Your task to perform on an android device: open app "Speedtest by Ookla" Image 0: 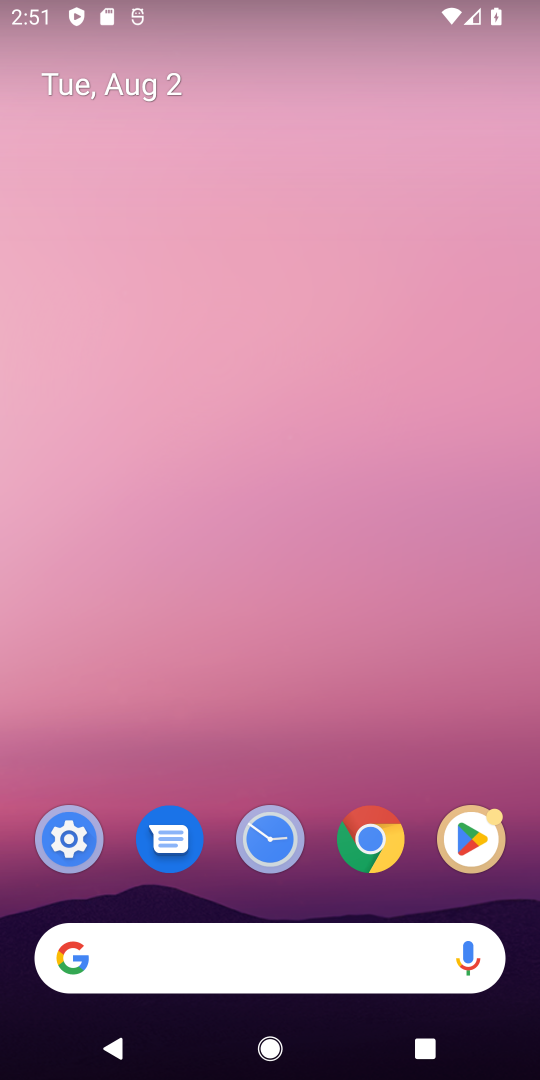
Step 0: click (450, 842)
Your task to perform on an android device: open app "Speedtest by Ookla" Image 1: 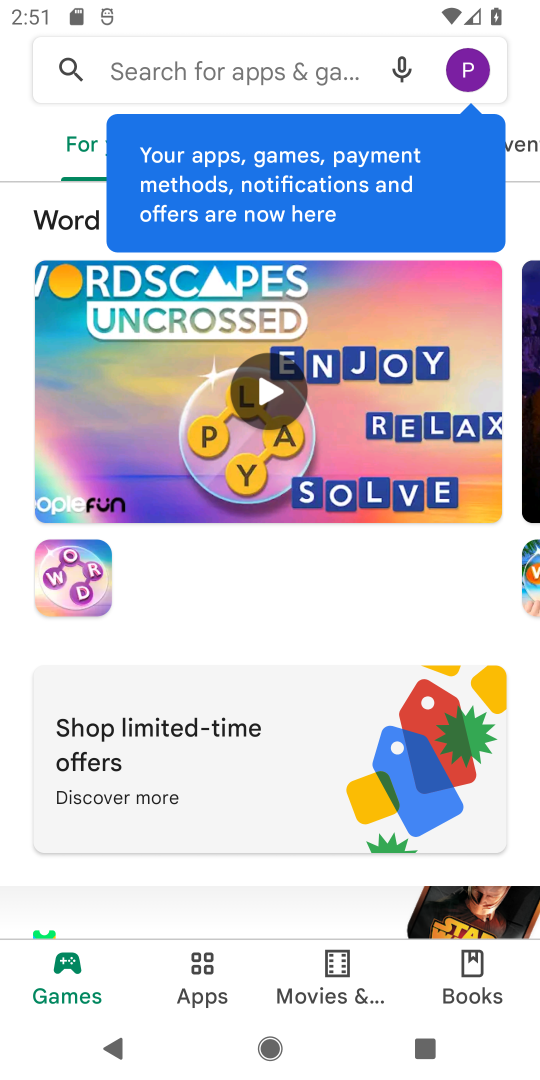
Step 1: click (239, 69)
Your task to perform on an android device: open app "Speedtest by Ookla" Image 2: 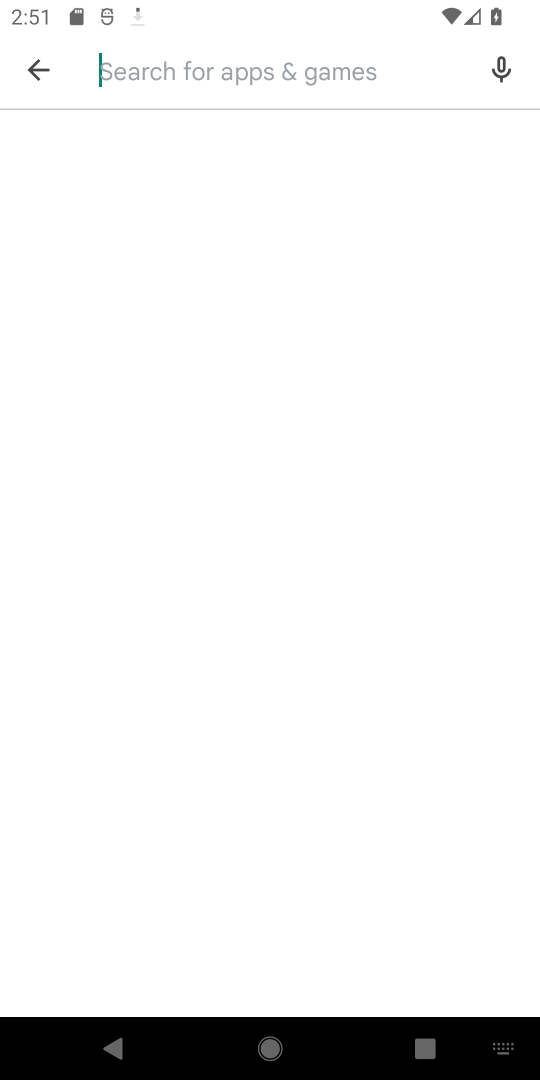
Step 2: type "speedtest"
Your task to perform on an android device: open app "Speedtest by Ookla" Image 3: 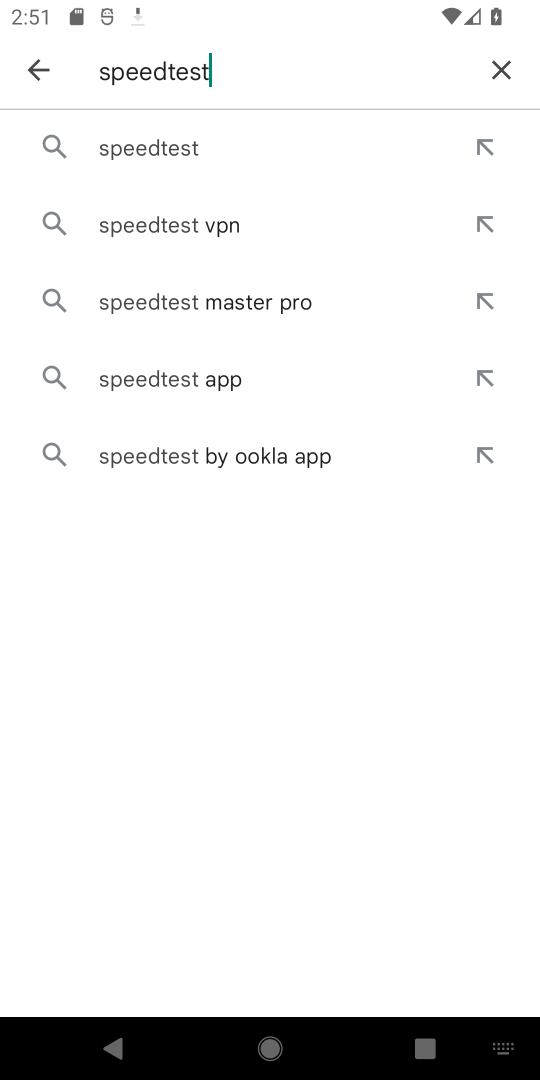
Step 3: click (318, 479)
Your task to perform on an android device: open app "Speedtest by Ookla" Image 4: 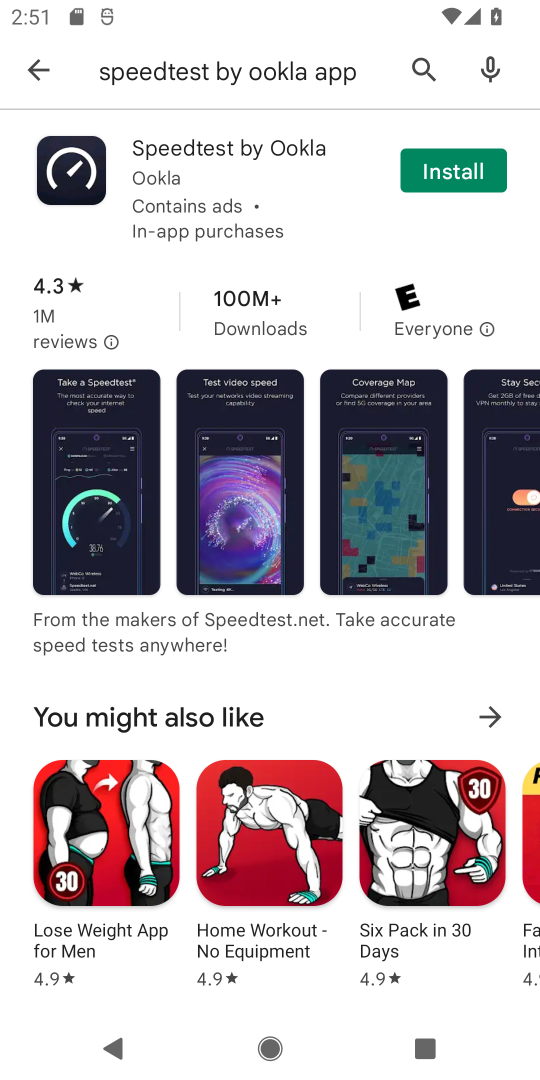
Step 4: click (492, 168)
Your task to perform on an android device: open app "Speedtest by Ookla" Image 5: 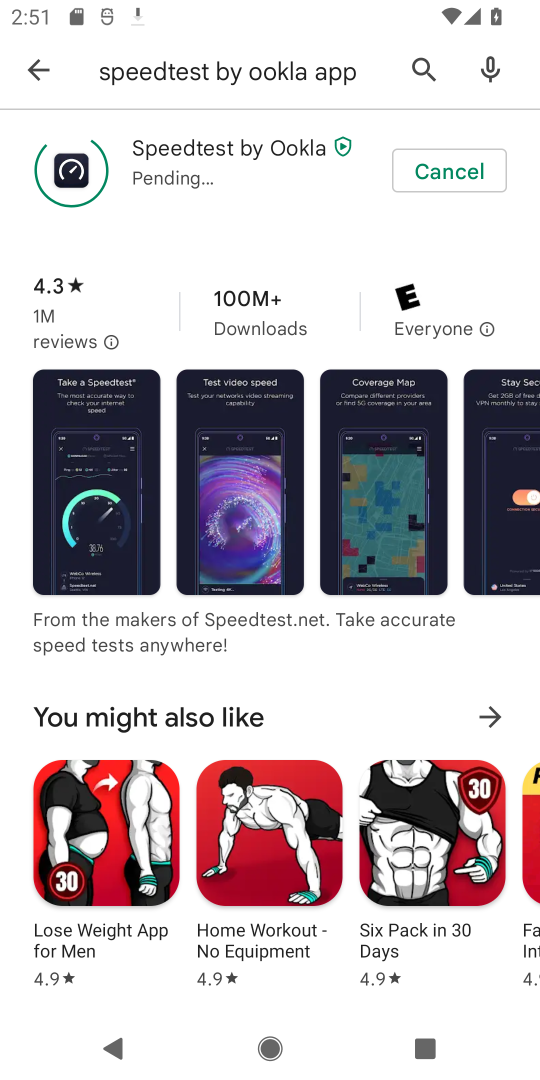
Step 5: task complete